Your task to perform on an android device: turn off airplane mode Image 0: 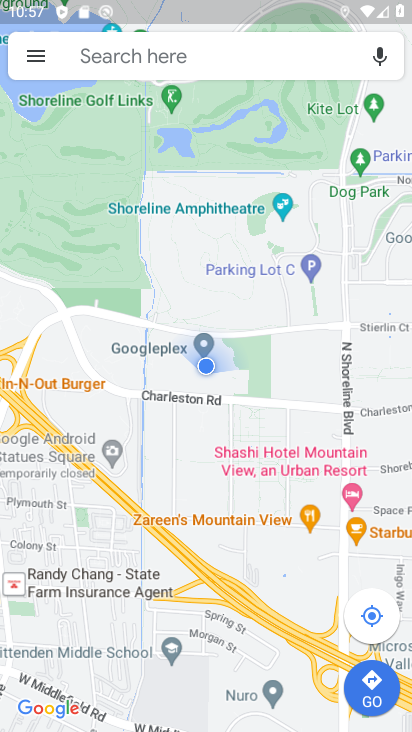
Step 0: press back button
Your task to perform on an android device: turn off airplane mode Image 1: 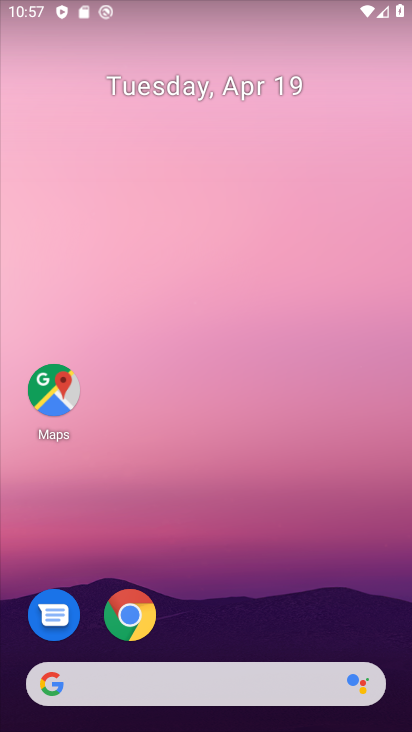
Step 1: drag from (188, 664) to (179, 208)
Your task to perform on an android device: turn off airplane mode Image 2: 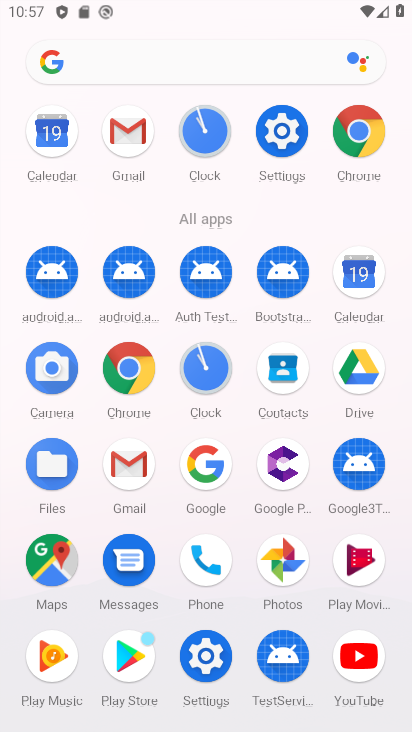
Step 2: click (281, 136)
Your task to perform on an android device: turn off airplane mode Image 3: 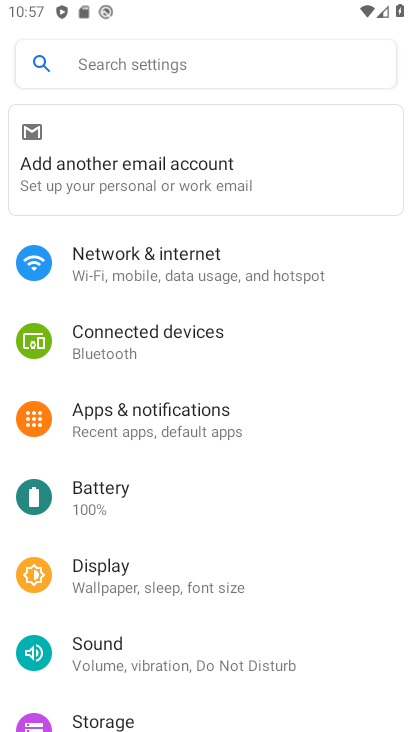
Step 3: click (165, 264)
Your task to perform on an android device: turn off airplane mode Image 4: 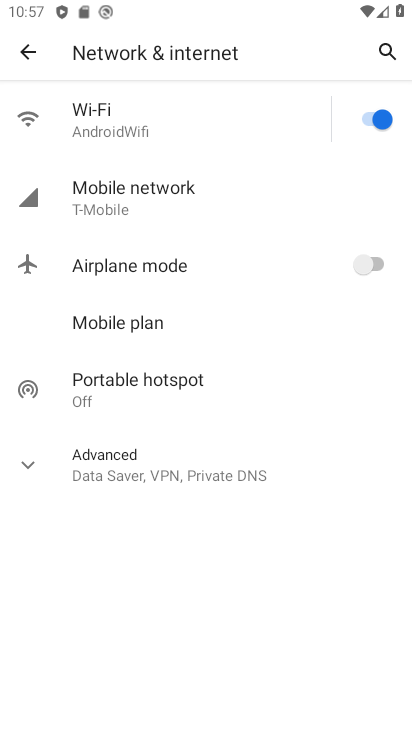
Step 4: task complete